Your task to perform on an android device: install app "Duolingo: language lessons" Image 0: 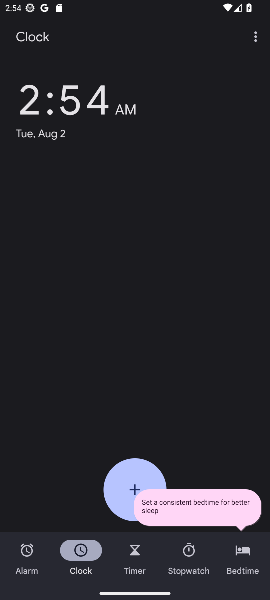
Step 0: press home button
Your task to perform on an android device: install app "Duolingo: language lessons" Image 1: 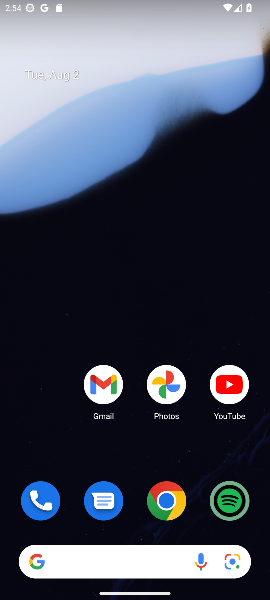
Step 1: drag from (144, 217) to (159, 7)
Your task to perform on an android device: install app "Duolingo: language lessons" Image 2: 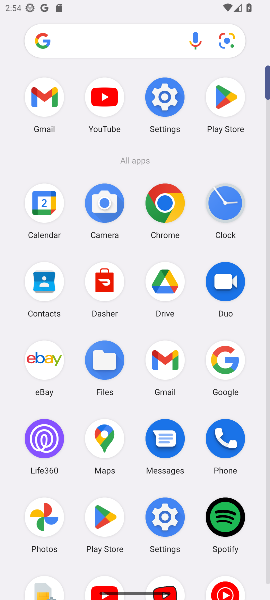
Step 2: click (221, 102)
Your task to perform on an android device: install app "Duolingo: language lessons" Image 3: 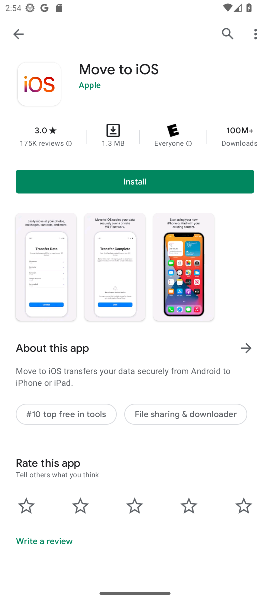
Step 3: click (220, 27)
Your task to perform on an android device: install app "Duolingo: language lessons" Image 4: 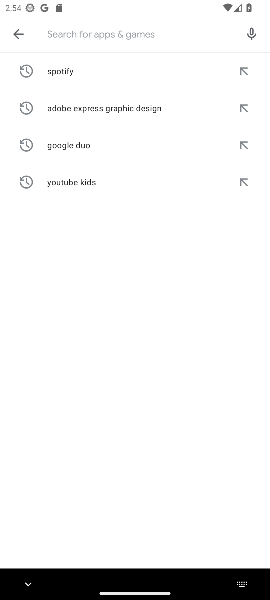
Step 4: type "Duolingo: language lessons"
Your task to perform on an android device: install app "Duolingo: language lessons" Image 5: 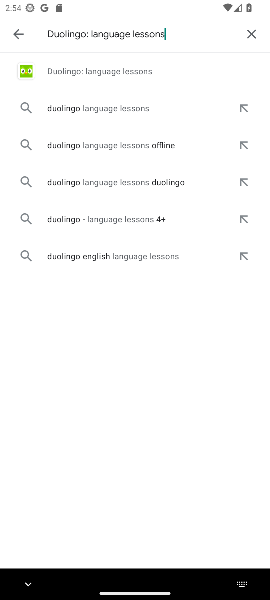
Step 5: click (79, 75)
Your task to perform on an android device: install app "Duolingo: language lessons" Image 6: 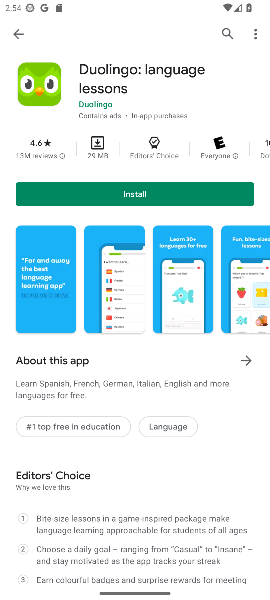
Step 6: click (122, 192)
Your task to perform on an android device: install app "Duolingo: language lessons" Image 7: 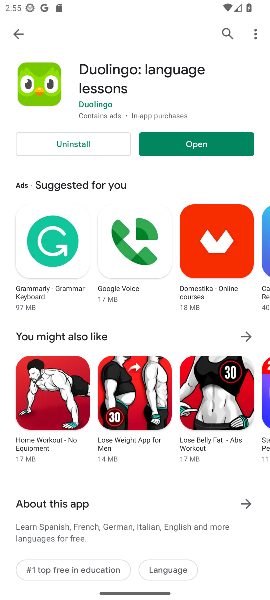
Step 7: task complete